Your task to perform on an android device: change keyboard looks Image 0: 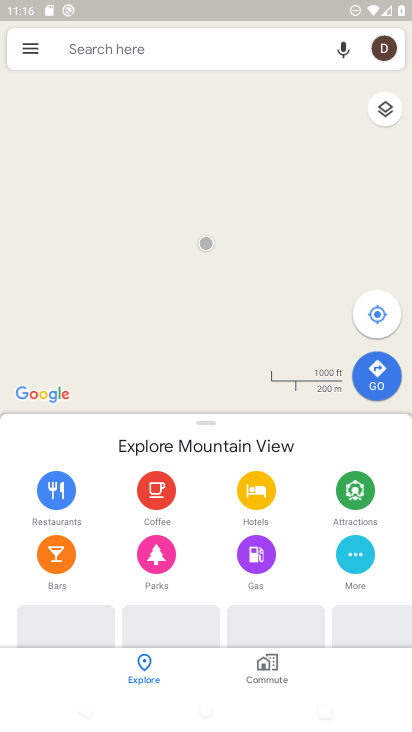
Step 0: press home button
Your task to perform on an android device: change keyboard looks Image 1: 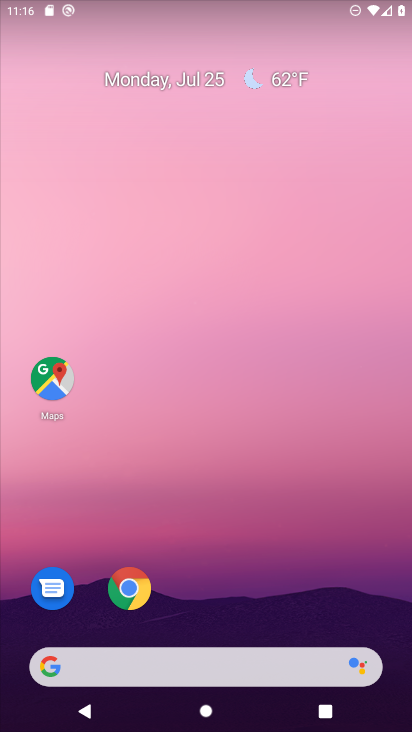
Step 1: drag from (57, 517) to (200, 97)
Your task to perform on an android device: change keyboard looks Image 2: 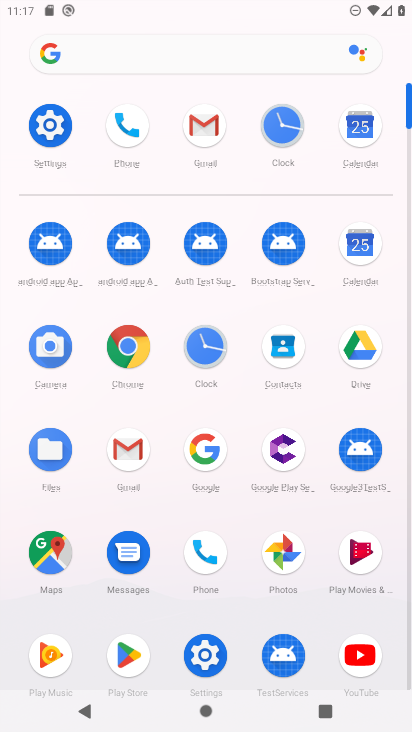
Step 2: click (43, 135)
Your task to perform on an android device: change keyboard looks Image 3: 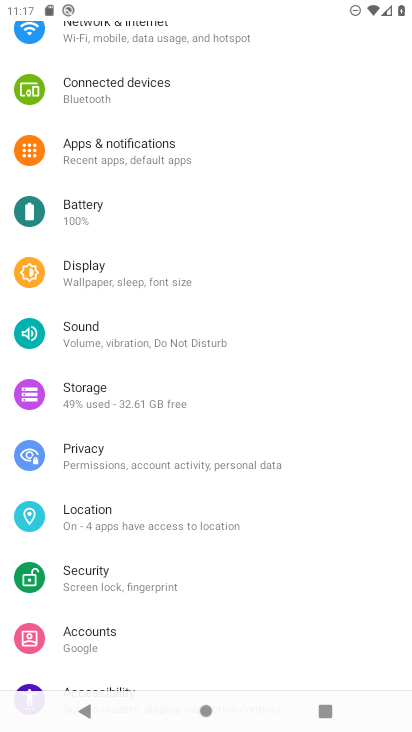
Step 3: task complete